Your task to perform on an android device: open chrome privacy settings Image 0: 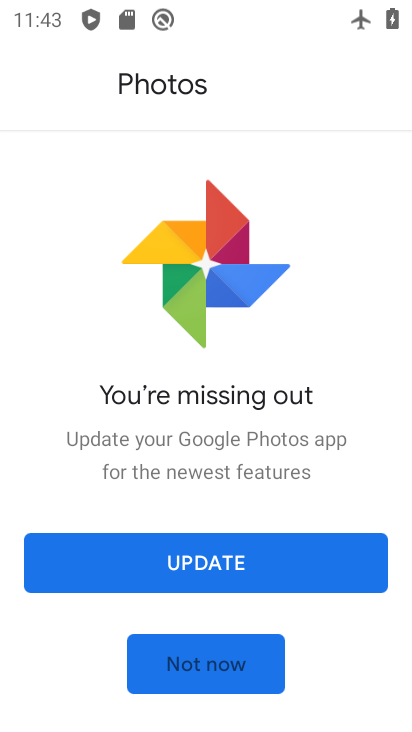
Step 0: press home button
Your task to perform on an android device: open chrome privacy settings Image 1: 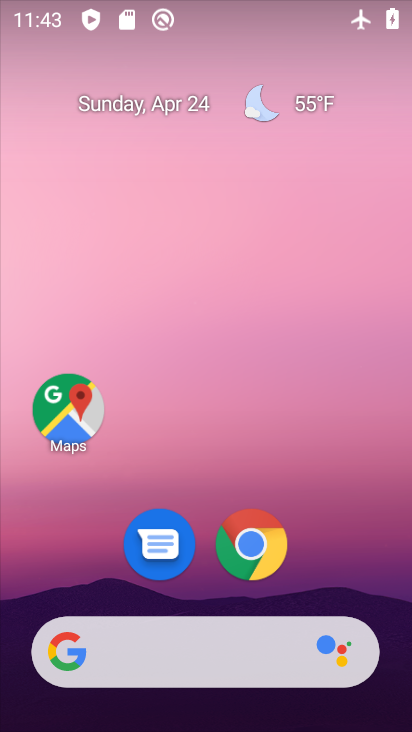
Step 1: click (248, 543)
Your task to perform on an android device: open chrome privacy settings Image 2: 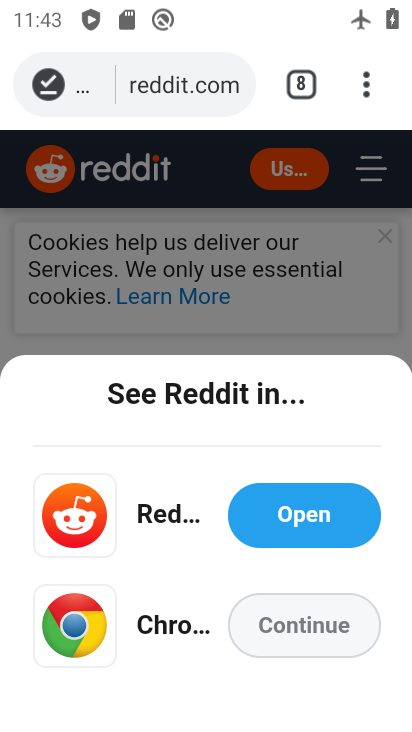
Step 2: drag from (365, 81) to (93, 594)
Your task to perform on an android device: open chrome privacy settings Image 3: 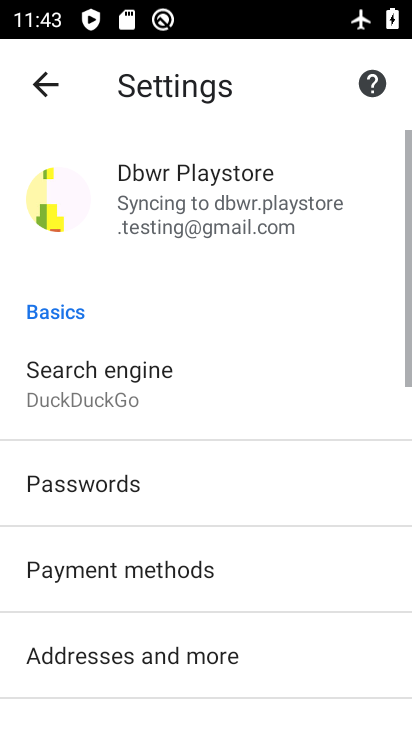
Step 3: drag from (271, 675) to (218, 241)
Your task to perform on an android device: open chrome privacy settings Image 4: 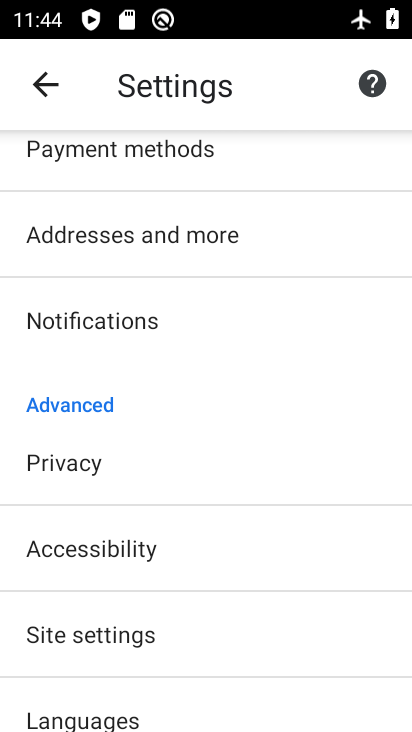
Step 4: click (58, 463)
Your task to perform on an android device: open chrome privacy settings Image 5: 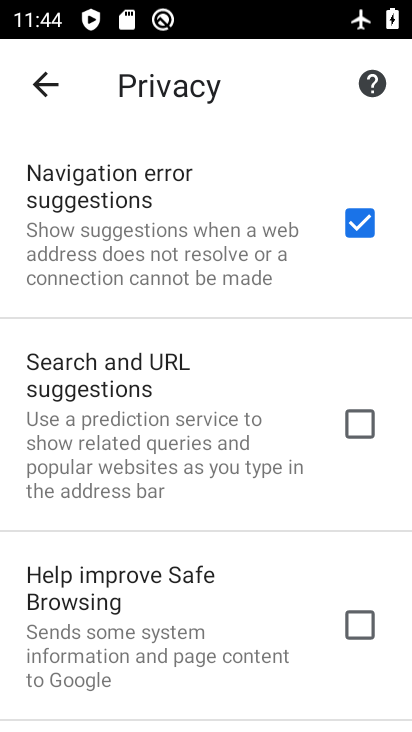
Step 5: task complete